Your task to perform on an android device: Go to battery settings Image 0: 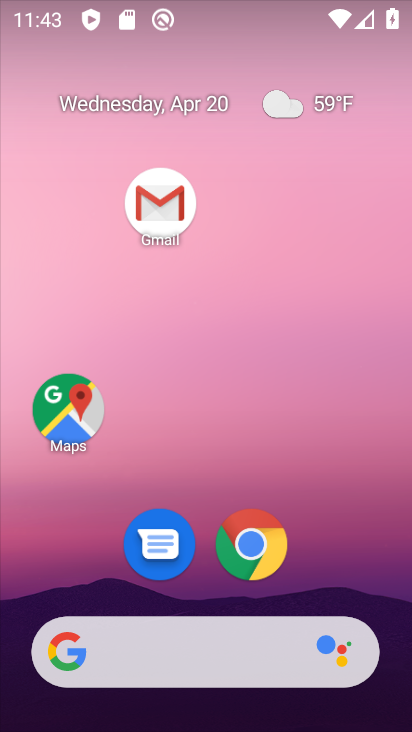
Step 0: drag from (259, 596) to (342, 83)
Your task to perform on an android device: Go to battery settings Image 1: 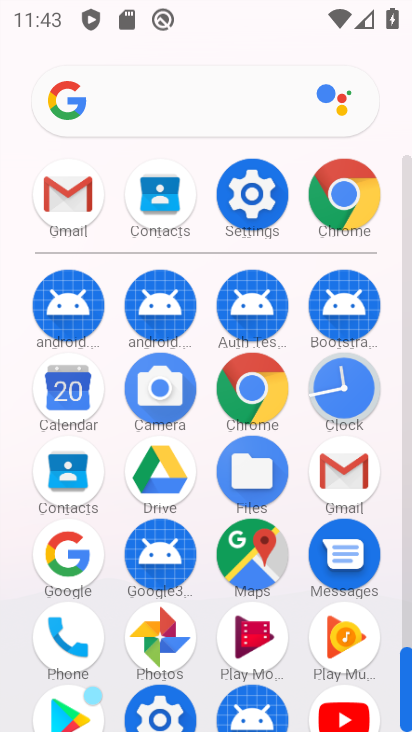
Step 1: click (276, 183)
Your task to perform on an android device: Go to battery settings Image 2: 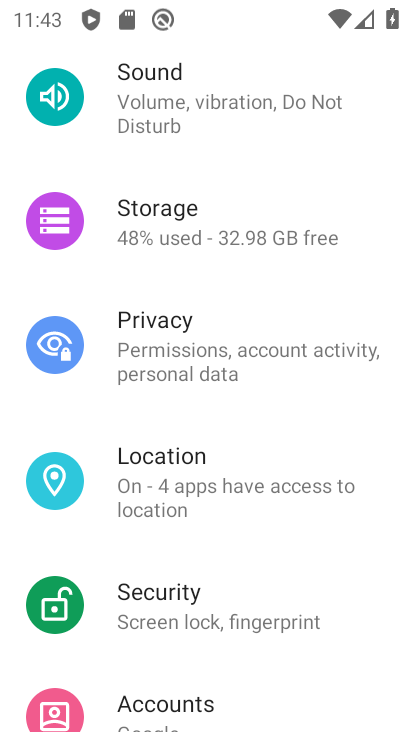
Step 2: drag from (301, 172) to (250, 658)
Your task to perform on an android device: Go to battery settings Image 3: 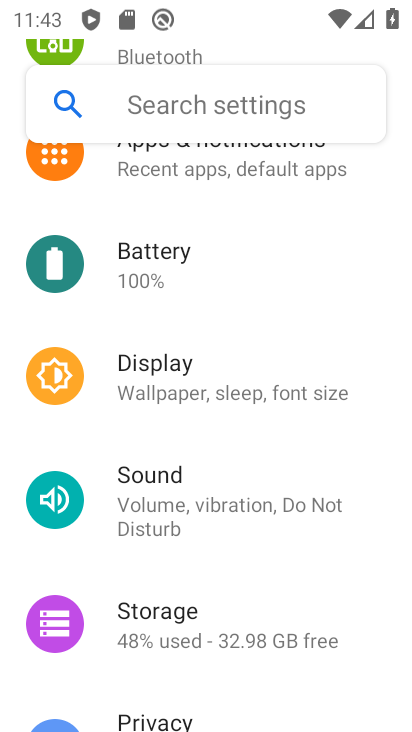
Step 3: click (312, 255)
Your task to perform on an android device: Go to battery settings Image 4: 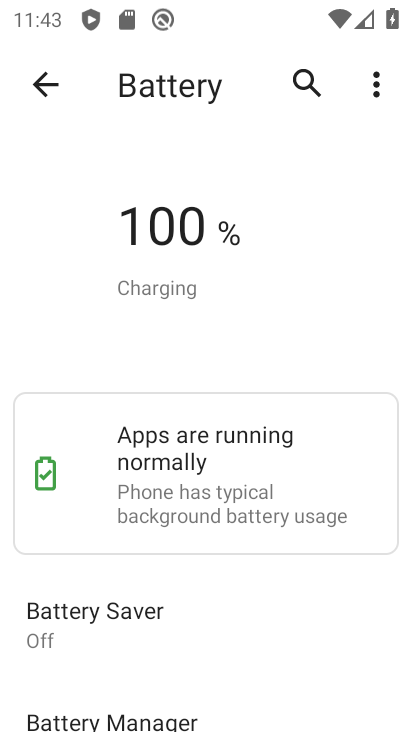
Step 4: task complete